Your task to perform on an android device: See recent photos Image 0: 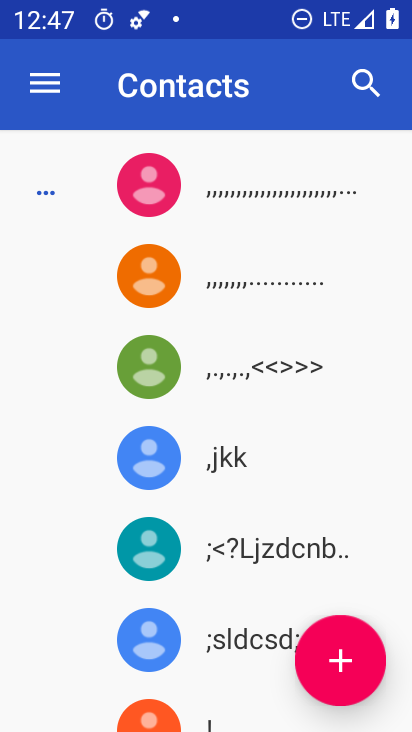
Step 0: press home button
Your task to perform on an android device: See recent photos Image 1: 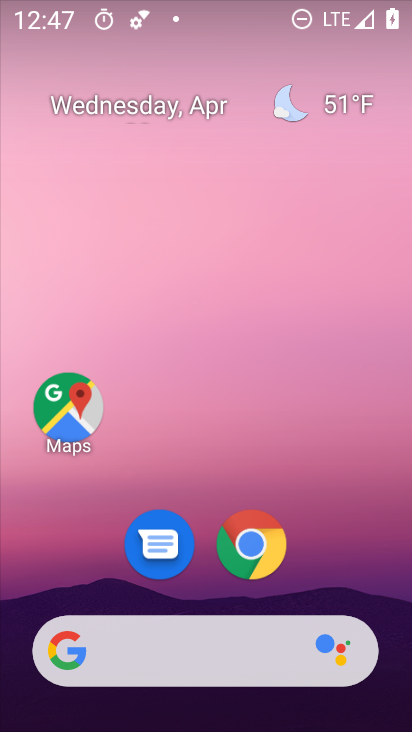
Step 1: drag from (352, 545) to (337, 138)
Your task to perform on an android device: See recent photos Image 2: 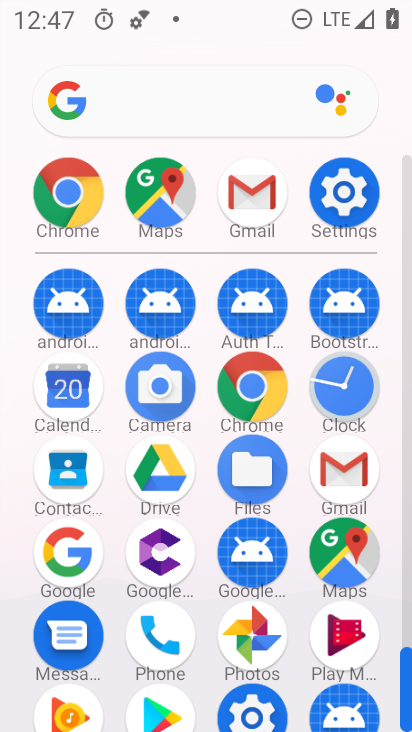
Step 2: click (262, 633)
Your task to perform on an android device: See recent photos Image 3: 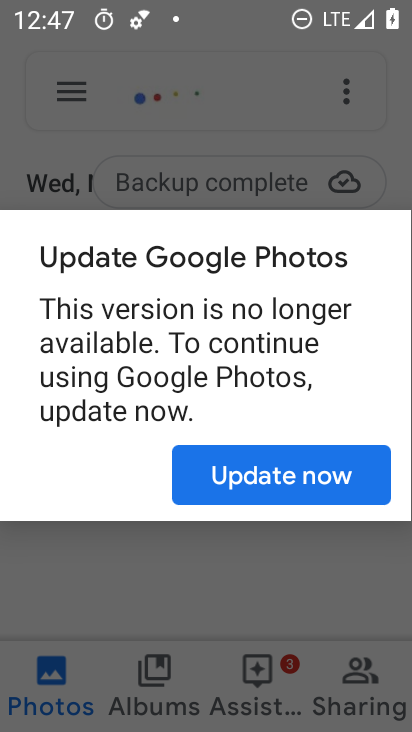
Step 3: click (305, 479)
Your task to perform on an android device: See recent photos Image 4: 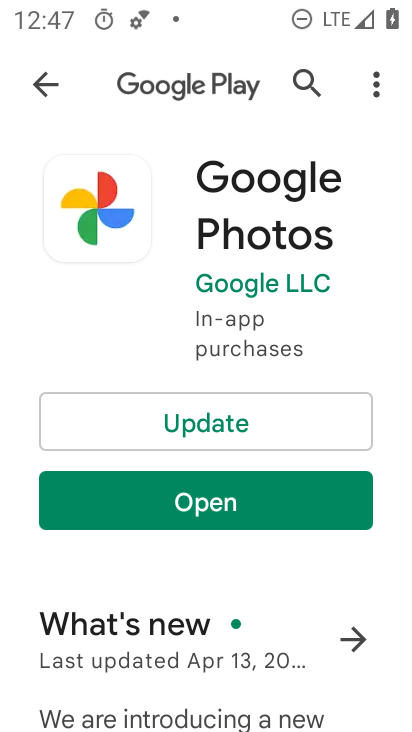
Step 4: click (250, 436)
Your task to perform on an android device: See recent photos Image 5: 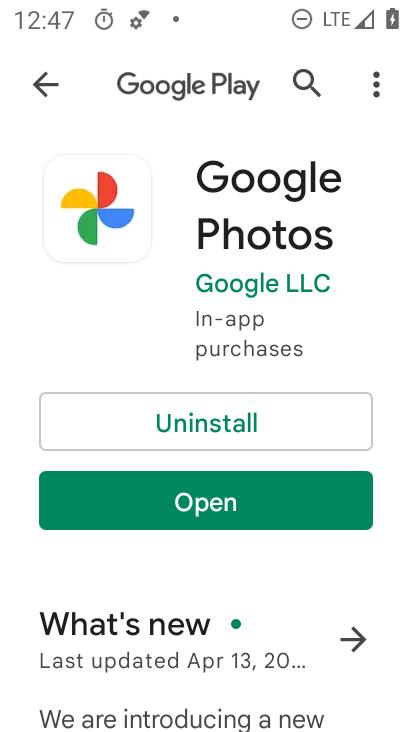
Step 5: click (266, 509)
Your task to perform on an android device: See recent photos Image 6: 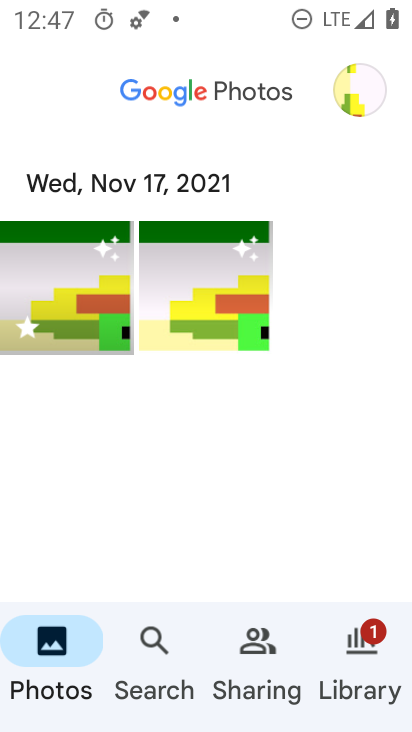
Step 6: click (66, 282)
Your task to perform on an android device: See recent photos Image 7: 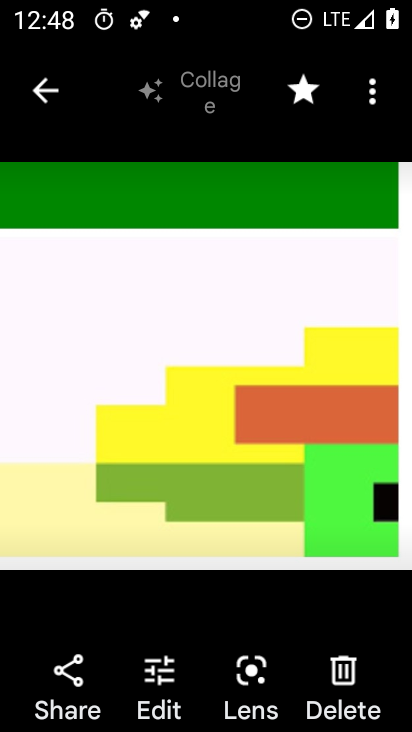
Step 7: task complete